Your task to perform on an android device: Show me recent news Image 0: 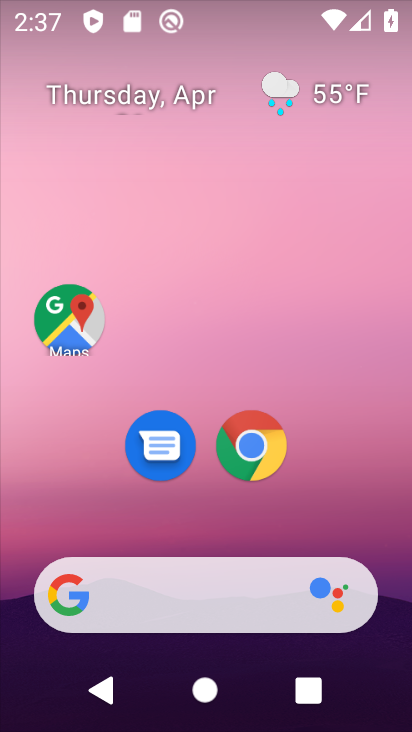
Step 0: drag from (1, 293) to (406, 342)
Your task to perform on an android device: Show me recent news Image 1: 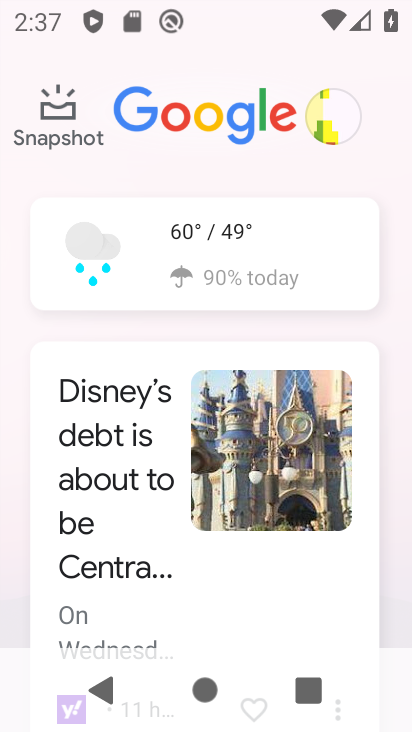
Step 1: task complete